Your task to perform on an android device: Open calendar and show me the first week of next month Image 0: 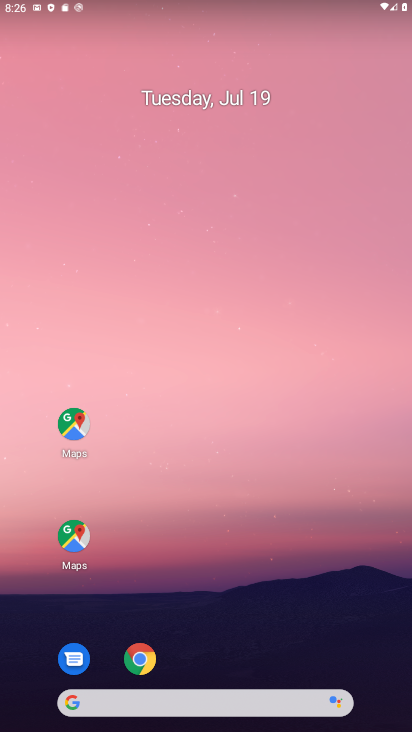
Step 0: drag from (328, 697) to (262, 56)
Your task to perform on an android device: Open calendar and show me the first week of next month Image 1: 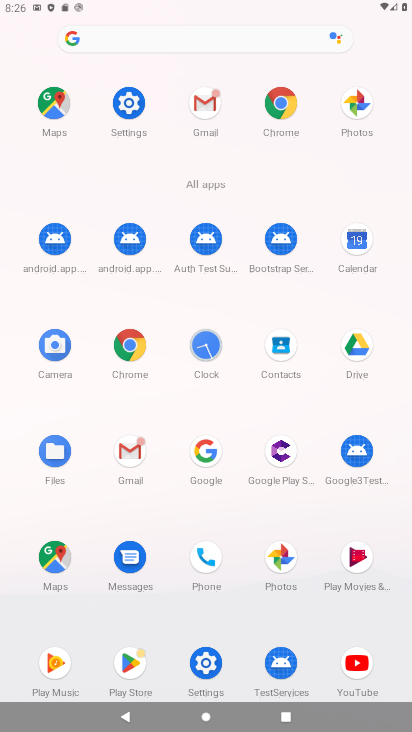
Step 1: drag from (288, 229) to (288, 188)
Your task to perform on an android device: Open calendar and show me the first week of next month Image 2: 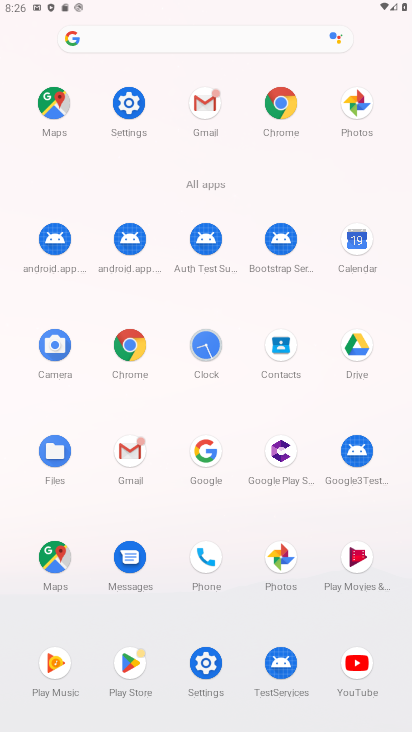
Step 2: click (361, 242)
Your task to perform on an android device: Open calendar and show me the first week of next month Image 3: 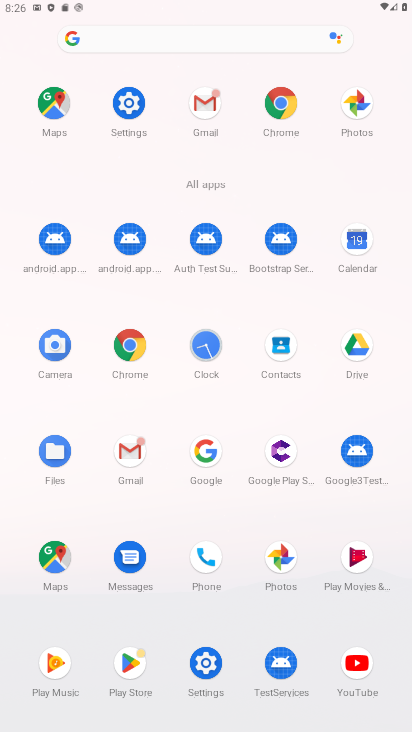
Step 3: click (365, 241)
Your task to perform on an android device: Open calendar and show me the first week of next month Image 4: 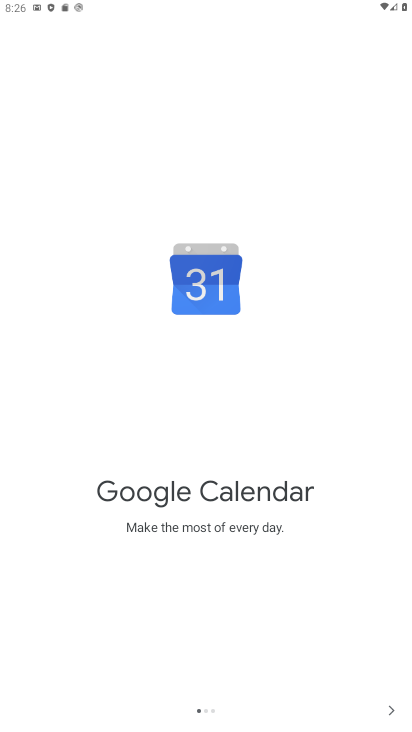
Step 4: click (385, 702)
Your task to perform on an android device: Open calendar and show me the first week of next month Image 5: 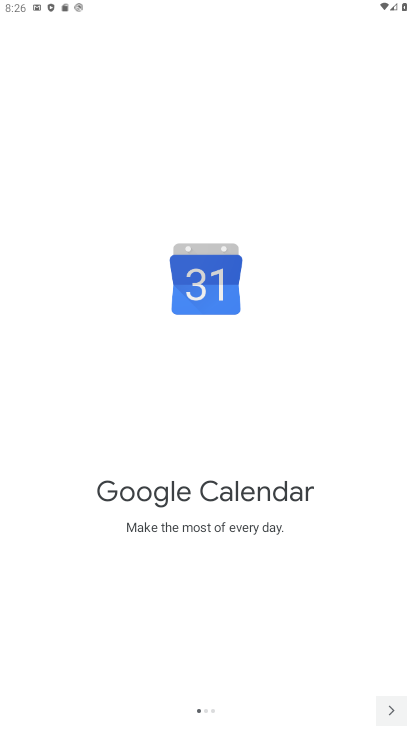
Step 5: click (393, 715)
Your task to perform on an android device: Open calendar and show me the first week of next month Image 6: 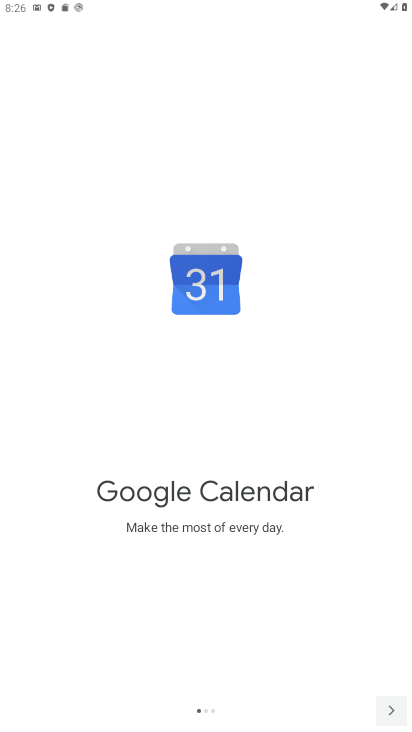
Step 6: click (393, 715)
Your task to perform on an android device: Open calendar and show me the first week of next month Image 7: 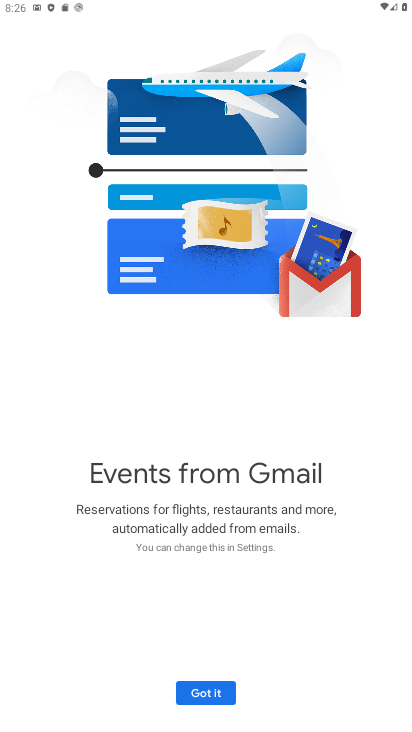
Step 7: click (397, 707)
Your task to perform on an android device: Open calendar and show me the first week of next month Image 8: 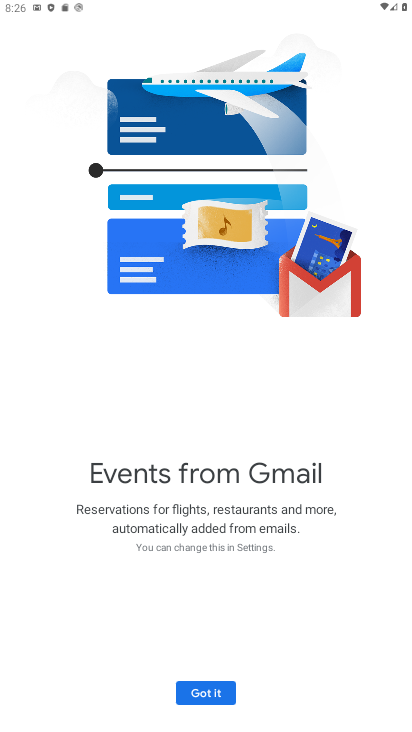
Step 8: click (391, 706)
Your task to perform on an android device: Open calendar and show me the first week of next month Image 9: 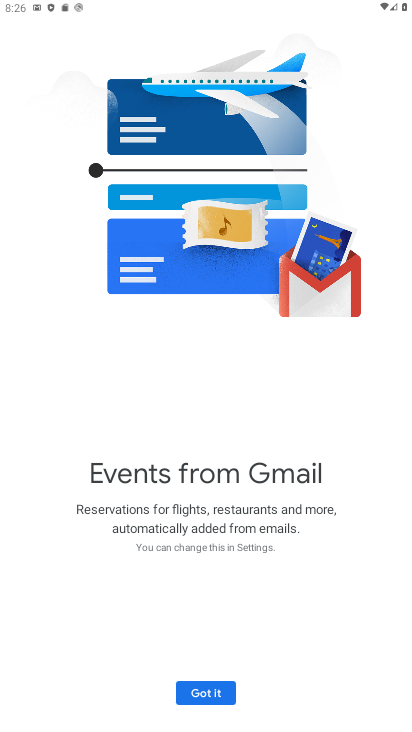
Step 9: click (217, 693)
Your task to perform on an android device: Open calendar and show me the first week of next month Image 10: 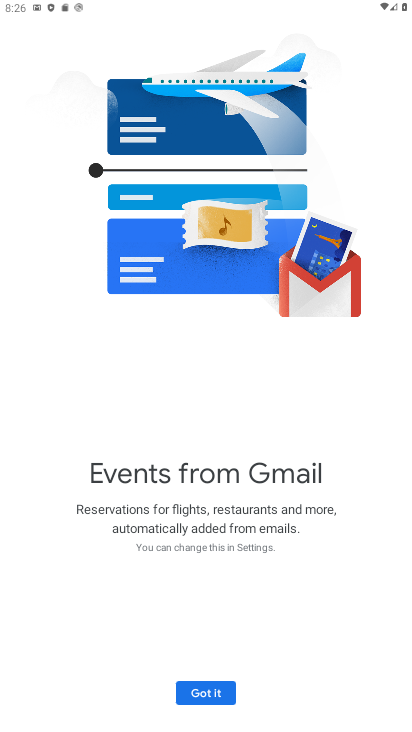
Step 10: click (216, 693)
Your task to perform on an android device: Open calendar and show me the first week of next month Image 11: 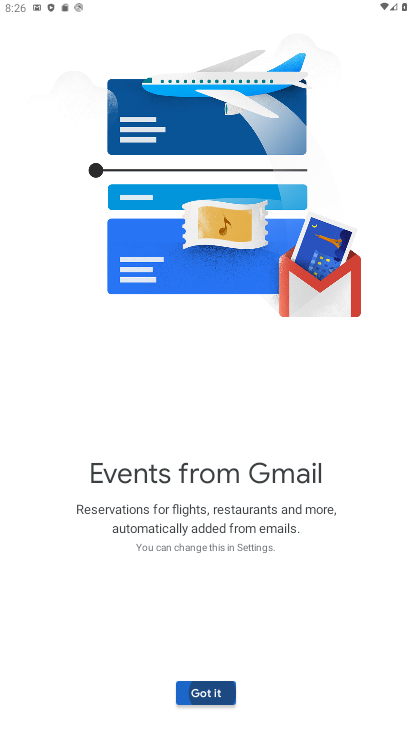
Step 11: click (216, 693)
Your task to perform on an android device: Open calendar and show me the first week of next month Image 12: 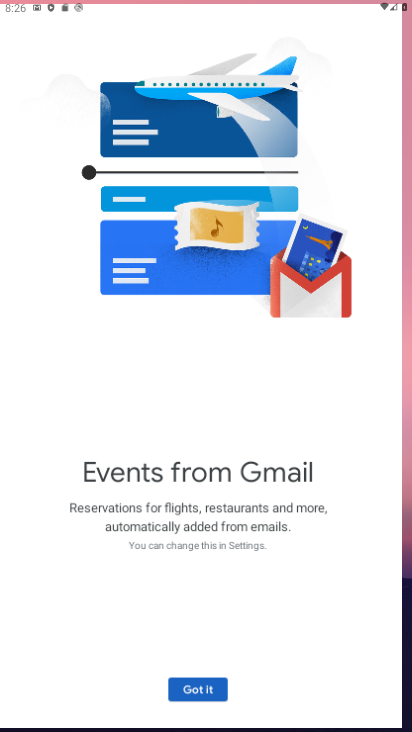
Step 12: click (216, 693)
Your task to perform on an android device: Open calendar and show me the first week of next month Image 13: 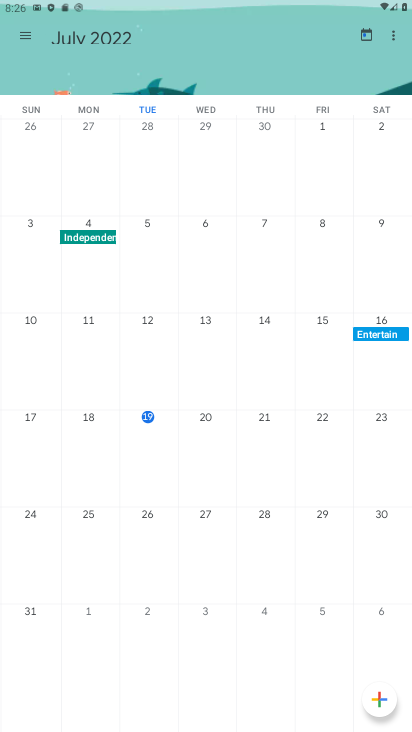
Step 13: drag from (369, 350) to (64, 390)
Your task to perform on an android device: Open calendar and show me the first week of next month Image 14: 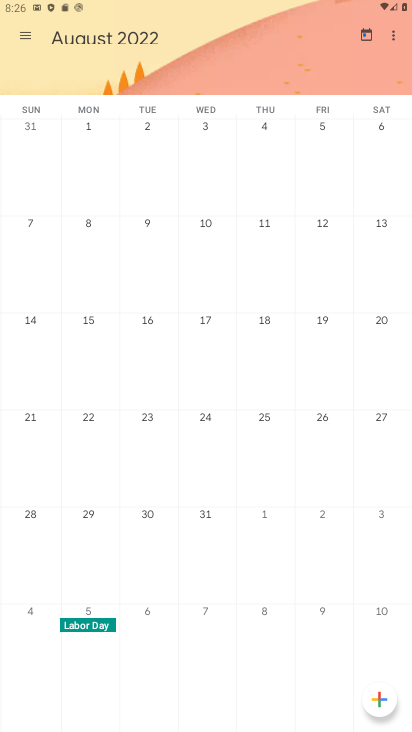
Step 14: click (206, 126)
Your task to perform on an android device: Open calendar and show me the first week of next month Image 15: 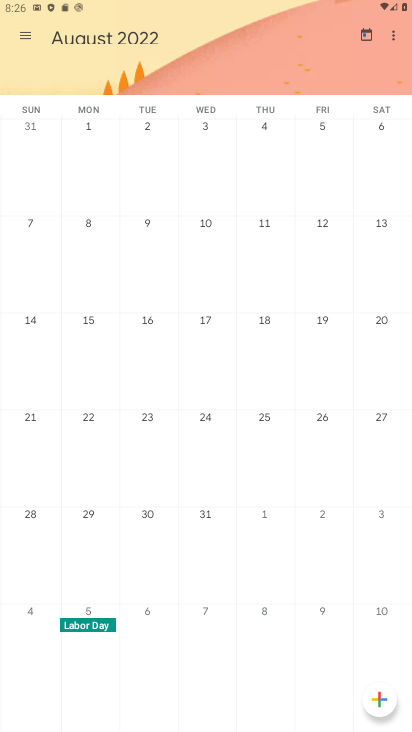
Step 15: click (205, 125)
Your task to perform on an android device: Open calendar and show me the first week of next month Image 16: 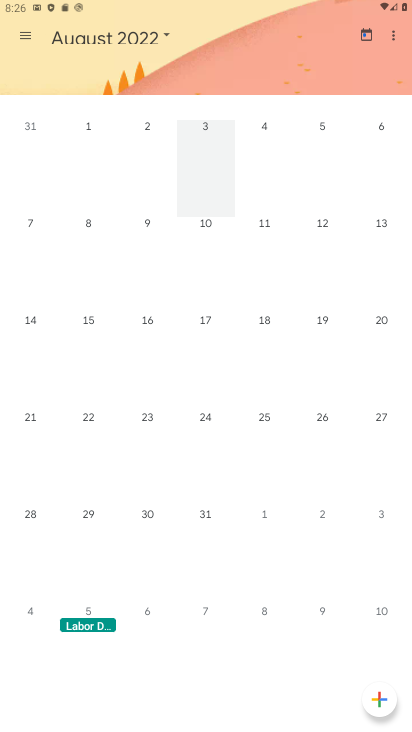
Step 16: click (206, 125)
Your task to perform on an android device: Open calendar and show me the first week of next month Image 17: 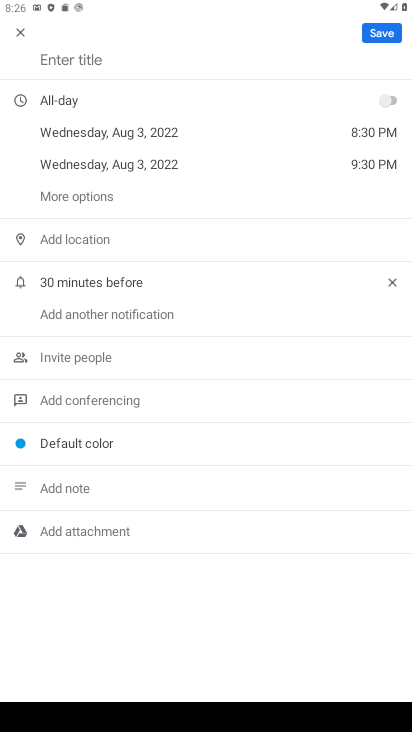
Step 17: task complete